Your task to perform on an android device: uninstall "Spotify: Music and Podcasts" Image 0: 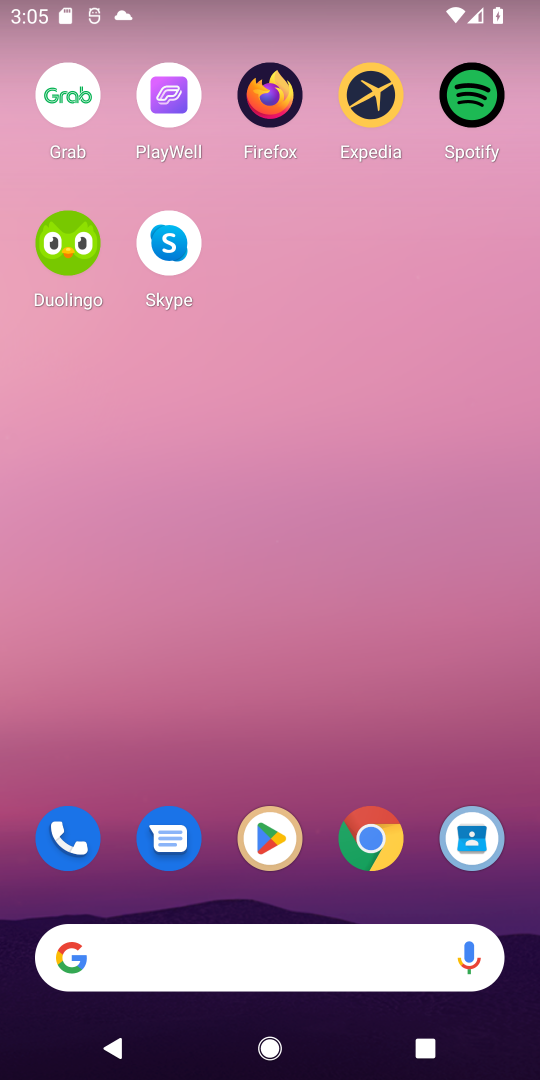
Step 0: click (247, 832)
Your task to perform on an android device: uninstall "Spotify: Music and Podcasts" Image 1: 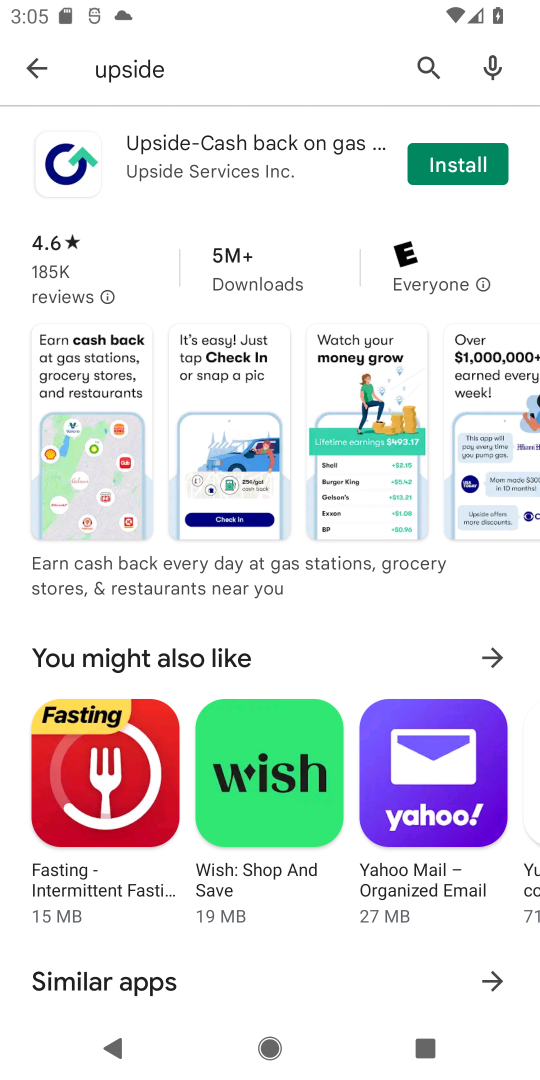
Step 1: click (41, 68)
Your task to perform on an android device: uninstall "Spotify: Music and Podcasts" Image 2: 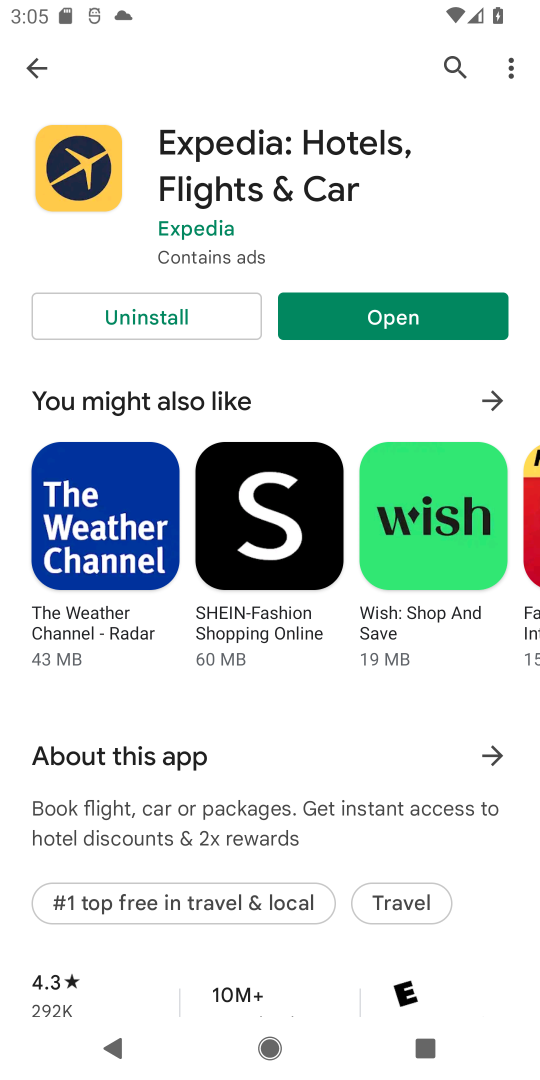
Step 2: click (25, 70)
Your task to perform on an android device: uninstall "Spotify: Music and Podcasts" Image 3: 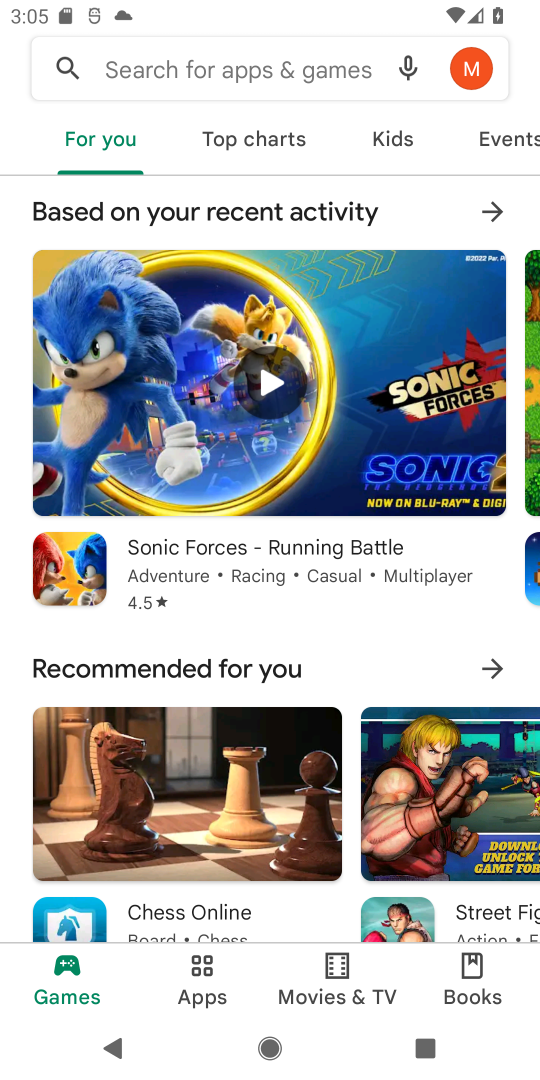
Step 3: click (314, 77)
Your task to perform on an android device: uninstall "Spotify: Music and Podcasts" Image 4: 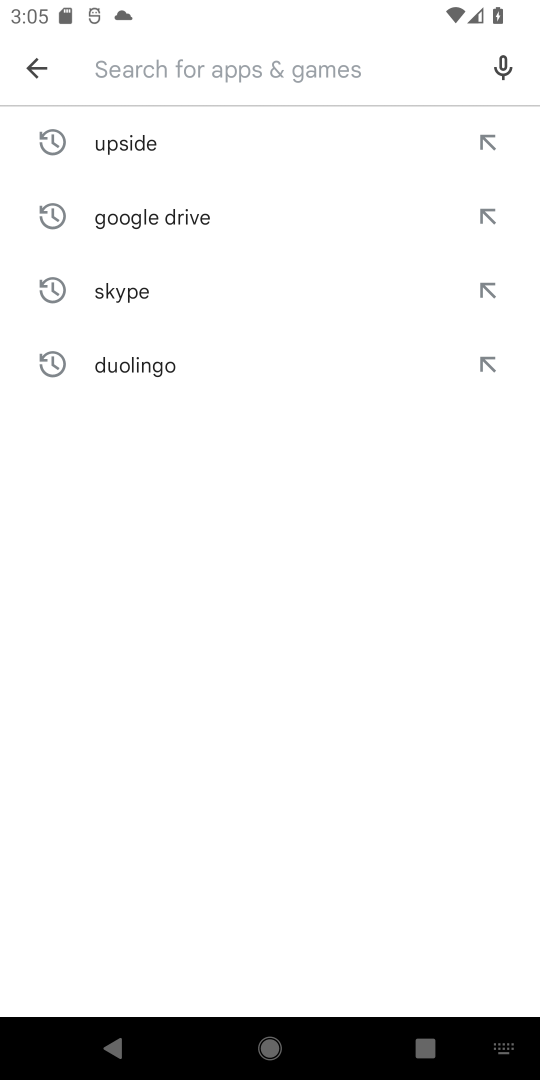
Step 4: type "Spotify"
Your task to perform on an android device: uninstall "Spotify: Music and Podcasts" Image 5: 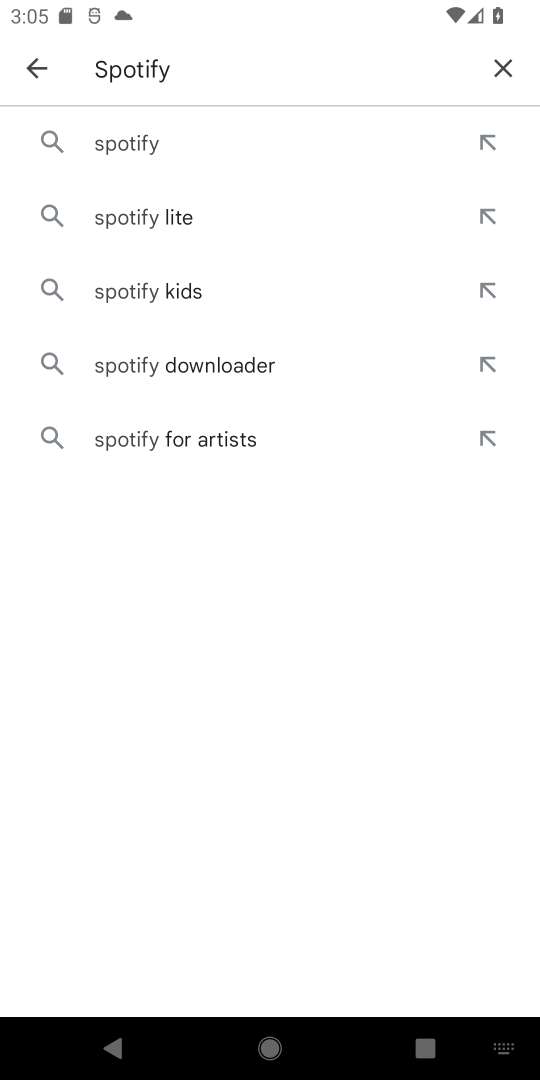
Step 5: click (164, 151)
Your task to perform on an android device: uninstall "Spotify: Music and Podcasts" Image 6: 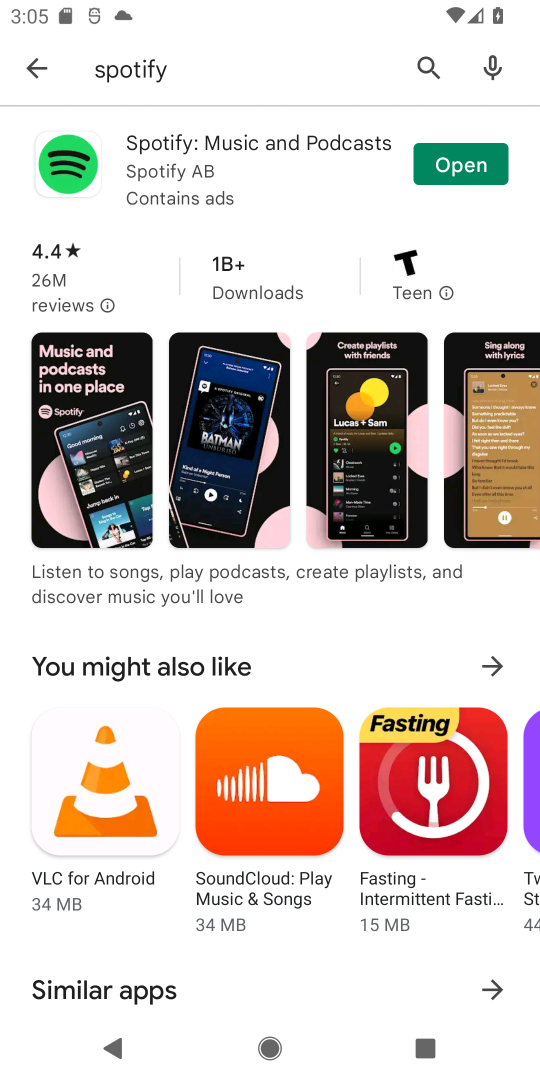
Step 6: click (214, 197)
Your task to perform on an android device: uninstall "Spotify: Music and Podcasts" Image 7: 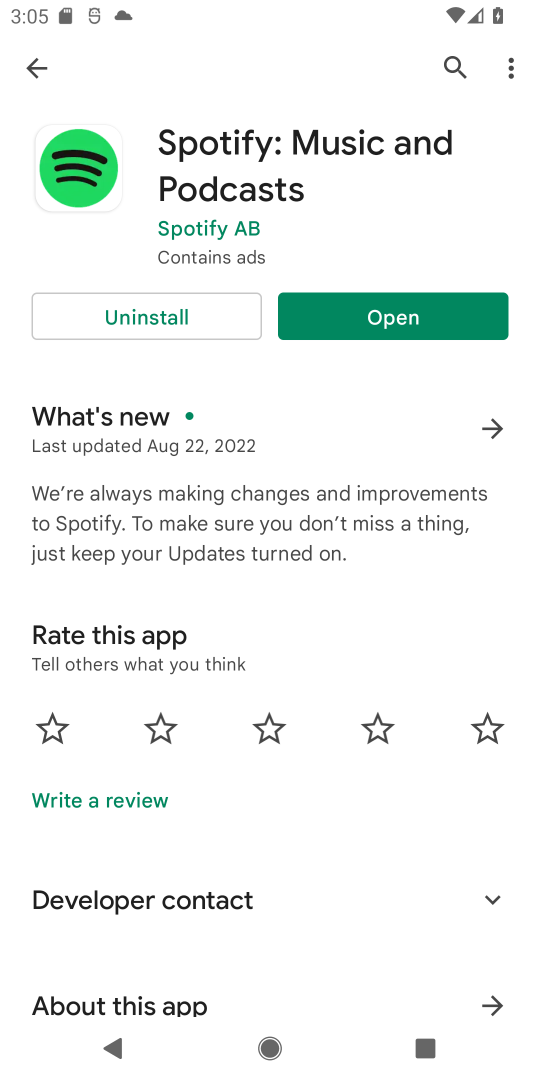
Step 7: click (207, 319)
Your task to perform on an android device: uninstall "Spotify: Music and Podcasts" Image 8: 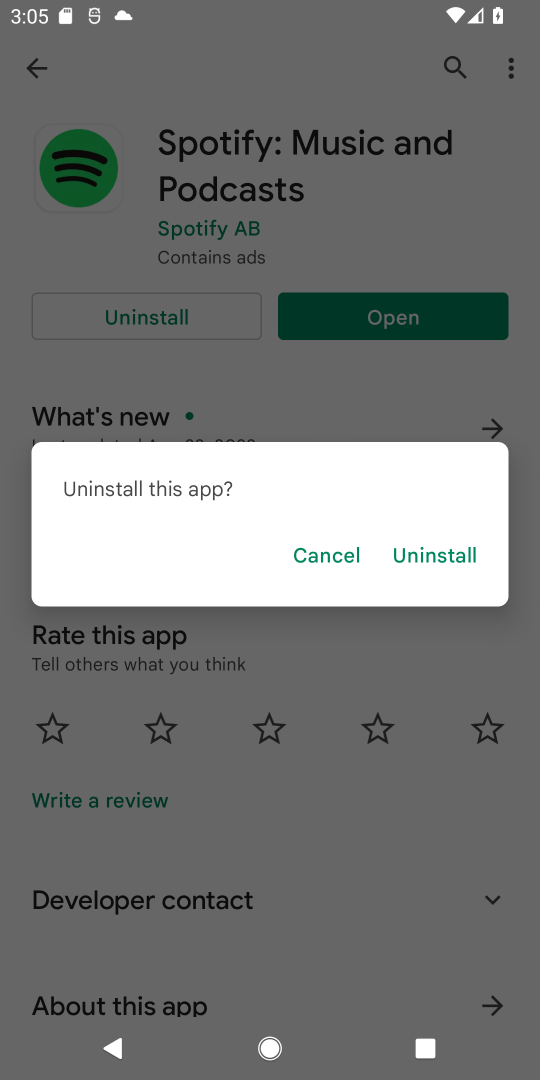
Step 8: click (442, 549)
Your task to perform on an android device: uninstall "Spotify: Music and Podcasts" Image 9: 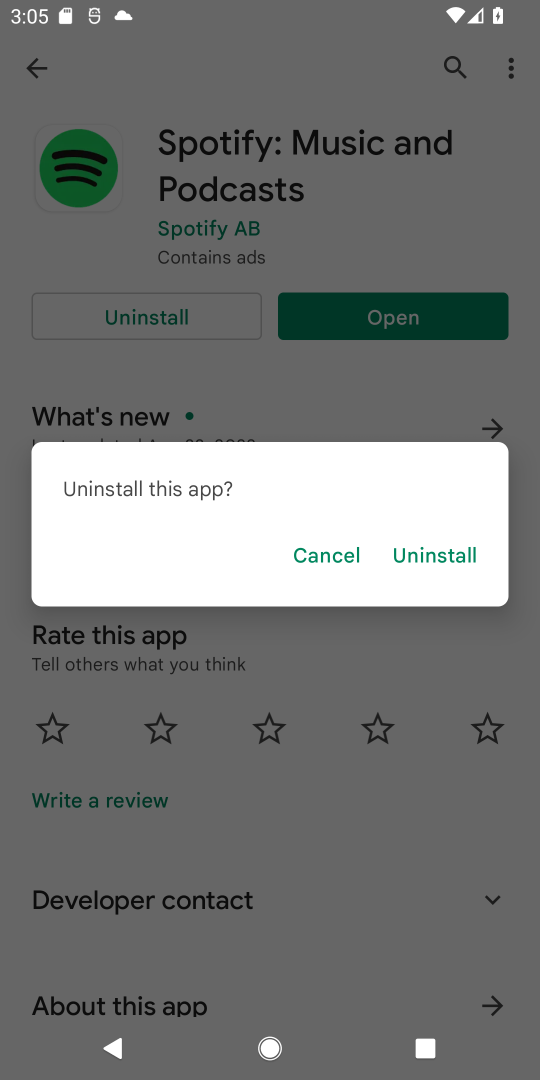
Step 9: click (442, 549)
Your task to perform on an android device: uninstall "Spotify: Music and Podcasts" Image 10: 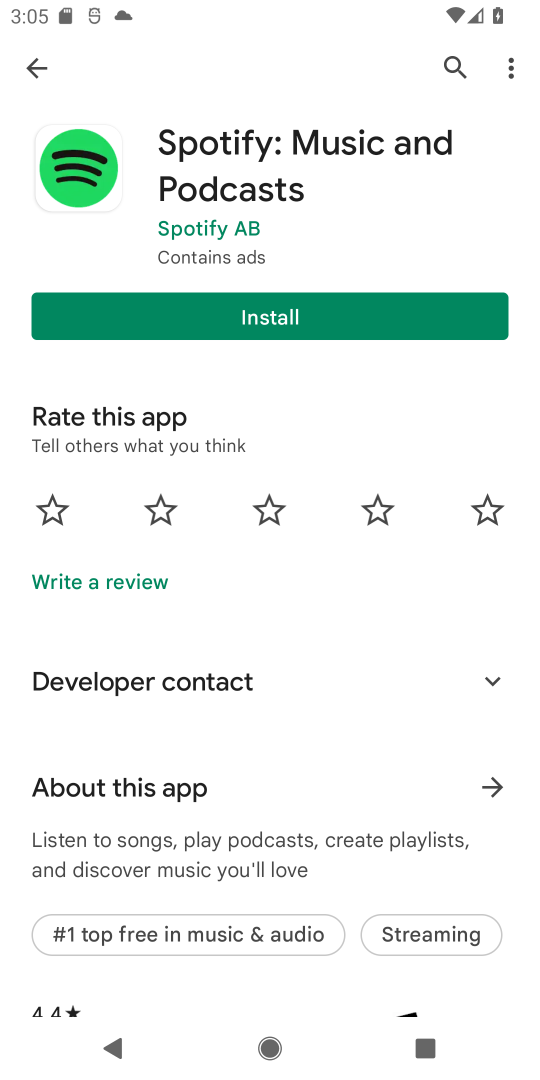
Step 10: task complete